Your task to perform on an android device: Open battery settings Image 0: 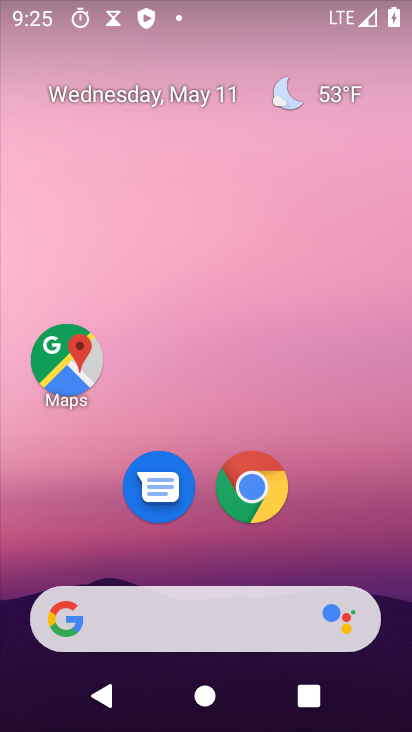
Step 0: drag from (330, 542) to (265, 16)
Your task to perform on an android device: Open battery settings Image 1: 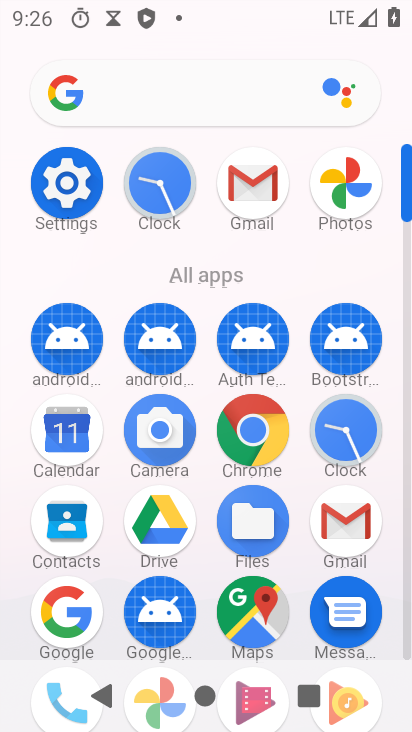
Step 1: click (67, 179)
Your task to perform on an android device: Open battery settings Image 2: 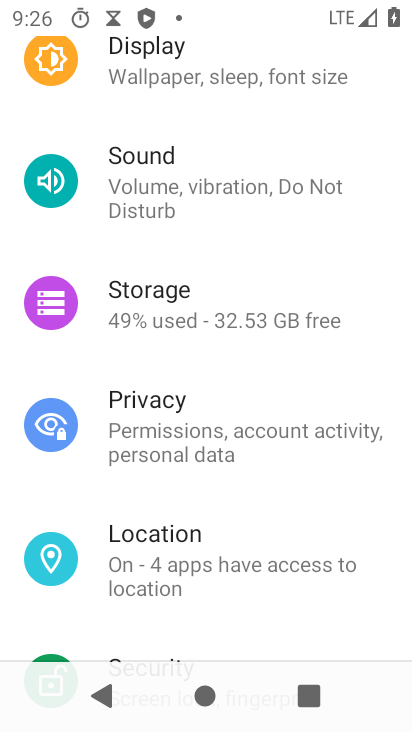
Step 2: drag from (233, 503) to (274, 347)
Your task to perform on an android device: Open battery settings Image 3: 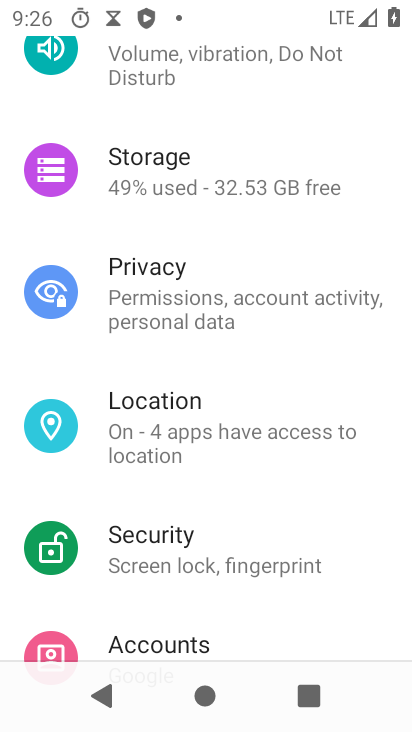
Step 3: drag from (226, 585) to (274, 398)
Your task to perform on an android device: Open battery settings Image 4: 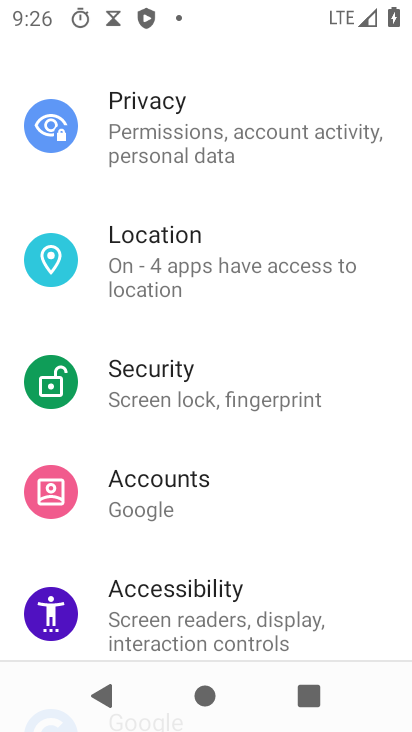
Step 4: drag from (243, 205) to (255, 396)
Your task to perform on an android device: Open battery settings Image 5: 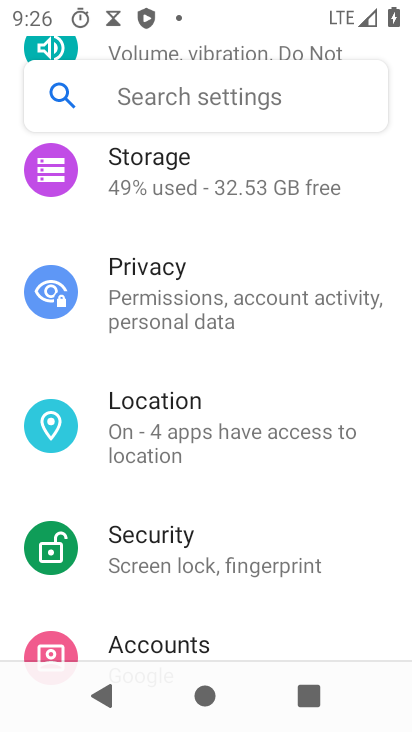
Step 5: drag from (224, 253) to (236, 458)
Your task to perform on an android device: Open battery settings Image 6: 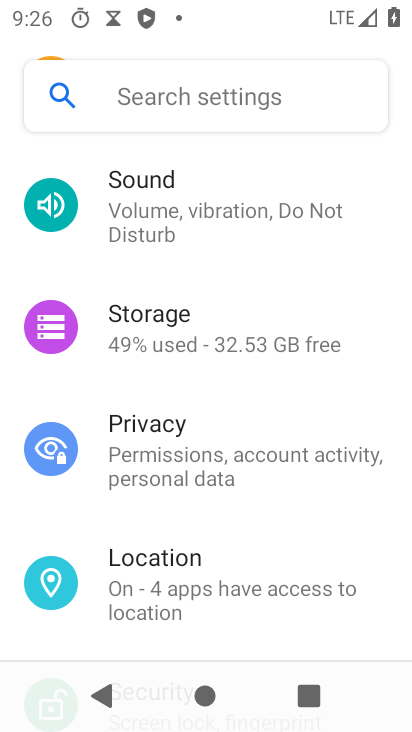
Step 6: drag from (210, 252) to (227, 452)
Your task to perform on an android device: Open battery settings Image 7: 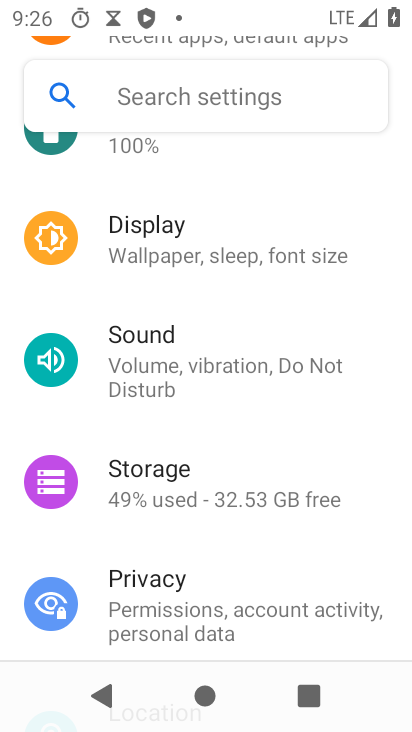
Step 7: drag from (210, 303) to (222, 463)
Your task to perform on an android device: Open battery settings Image 8: 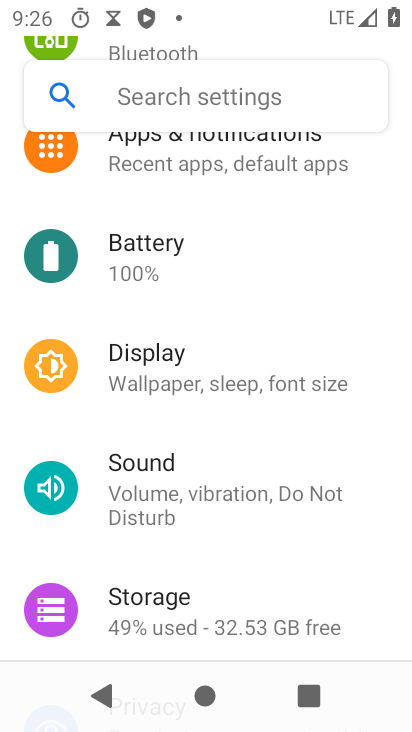
Step 8: drag from (209, 321) to (260, 517)
Your task to perform on an android device: Open battery settings Image 9: 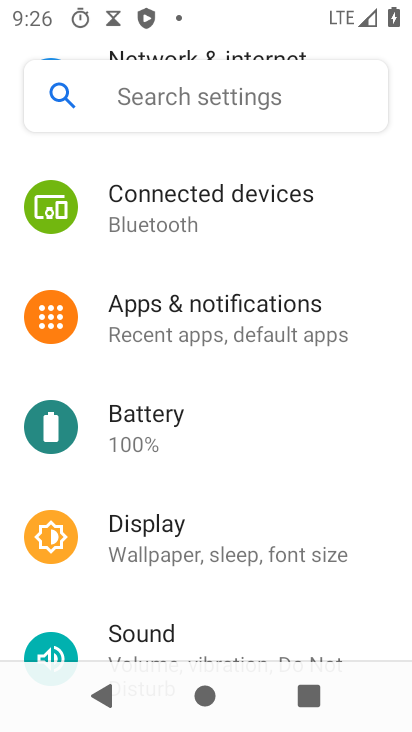
Step 9: click (158, 409)
Your task to perform on an android device: Open battery settings Image 10: 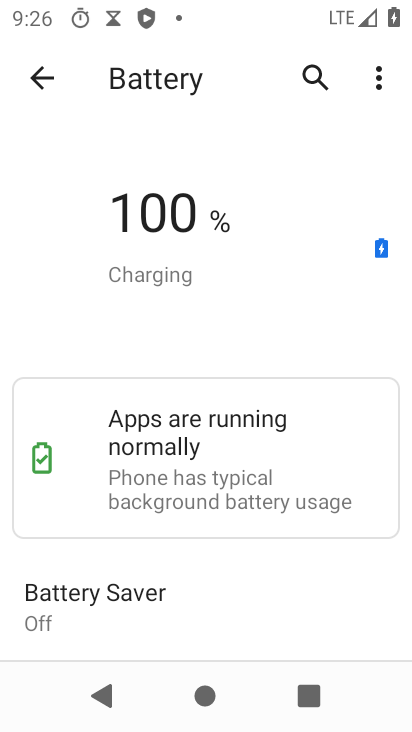
Step 10: task complete